Your task to perform on an android device: Is it going to rain today? Image 0: 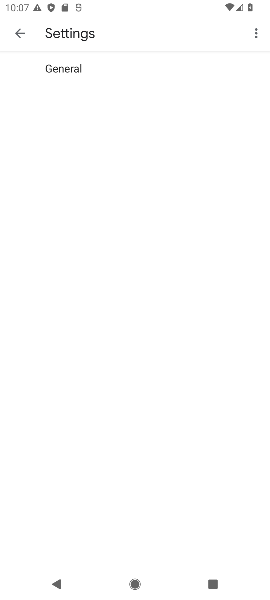
Step 0: press home button
Your task to perform on an android device: Is it going to rain today? Image 1: 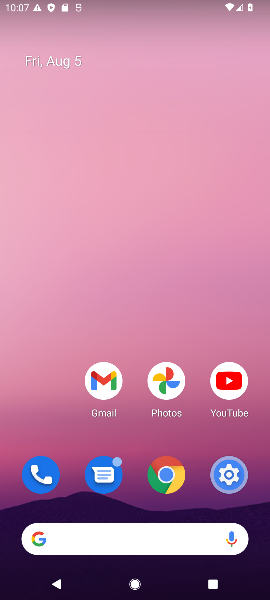
Step 1: click (136, 538)
Your task to perform on an android device: Is it going to rain today? Image 2: 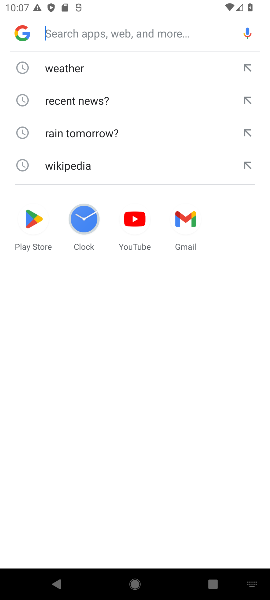
Step 2: click (72, 71)
Your task to perform on an android device: Is it going to rain today? Image 3: 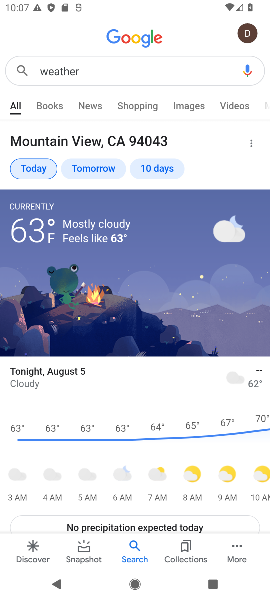
Step 3: task complete